Your task to perform on an android device: Do I have any events this weekend? Image 0: 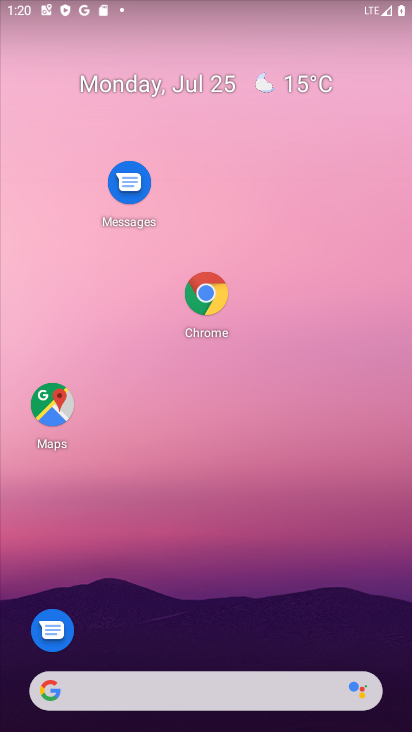
Step 0: press home button
Your task to perform on an android device: Do I have any events this weekend? Image 1: 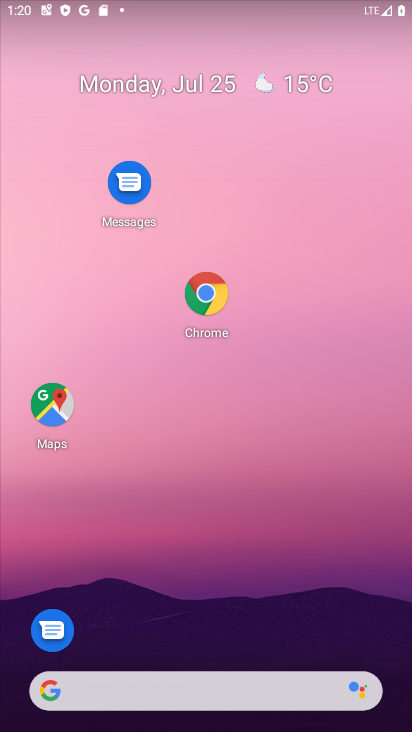
Step 1: drag from (271, 630) to (271, 134)
Your task to perform on an android device: Do I have any events this weekend? Image 2: 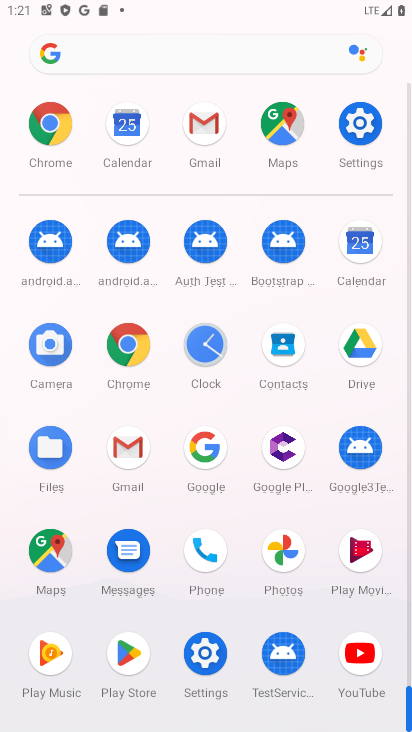
Step 2: click (347, 276)
Your task to perform on an android device: Do I have any events this weekend? Image 3: 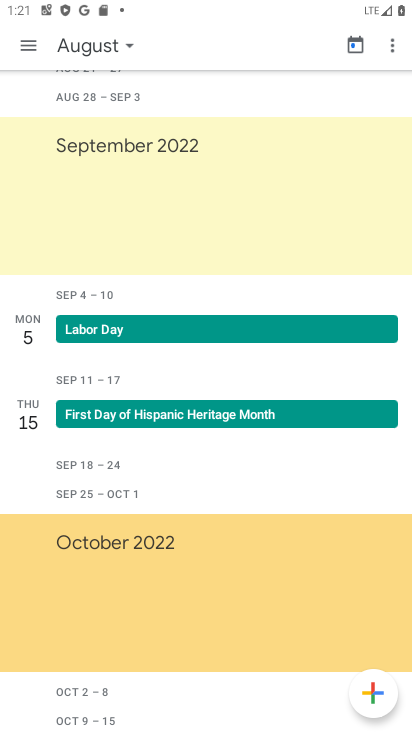
Step 3: click (126, 35)
Your task to perform on an android device: Do I have any events this weekend? Image 4: 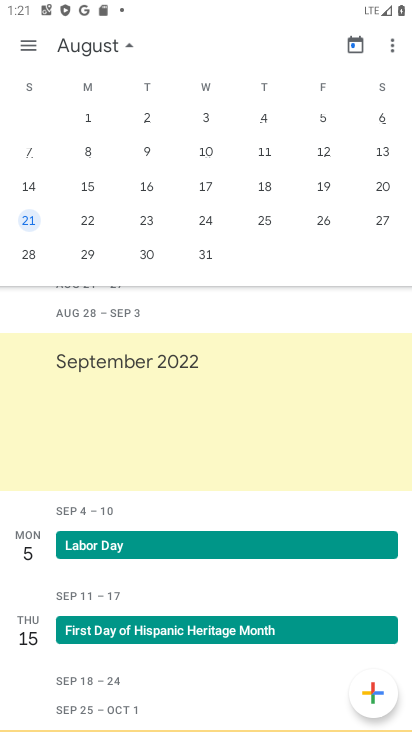
Step 4: drag from (40, 165) to (407, 184)
Your task to perform on an android device: Do I have any events this weekend? Image 5: 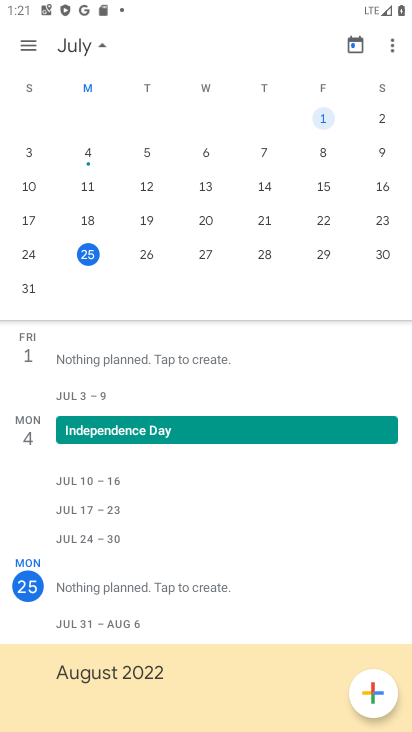
Step 5: click (23, 287)
Your task to perform on an android device: Do I have any events this weekend? Image 6: 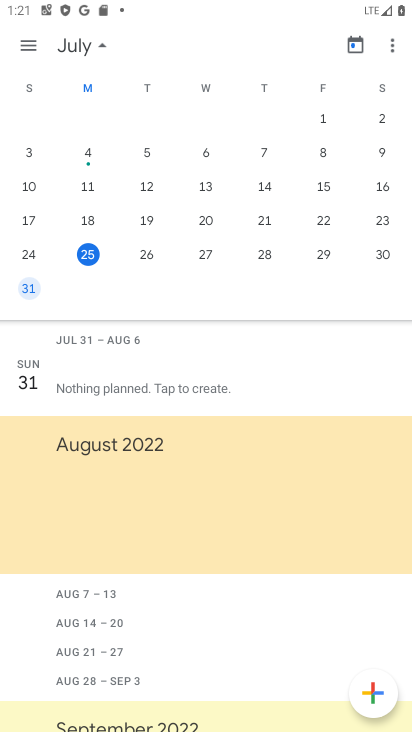
Step 6: click (96, 47)
Your task to perform on an android device: Do I have any events this weekend? Image 7: 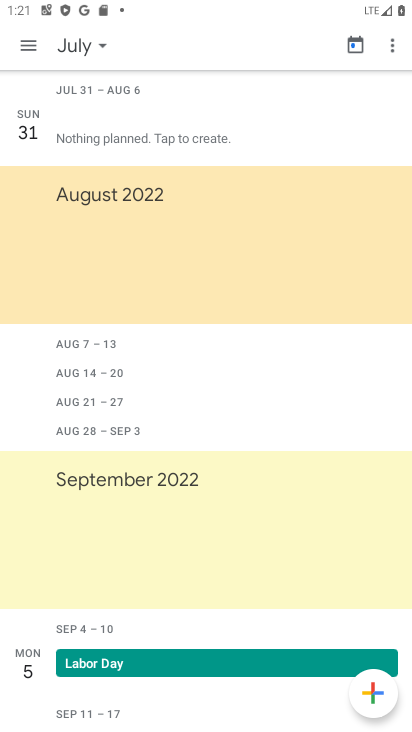
Step 7: drag from (144, 495) to (116, 287)
Your task to perform on an android device: Do I have any events this weekend? Image 8: 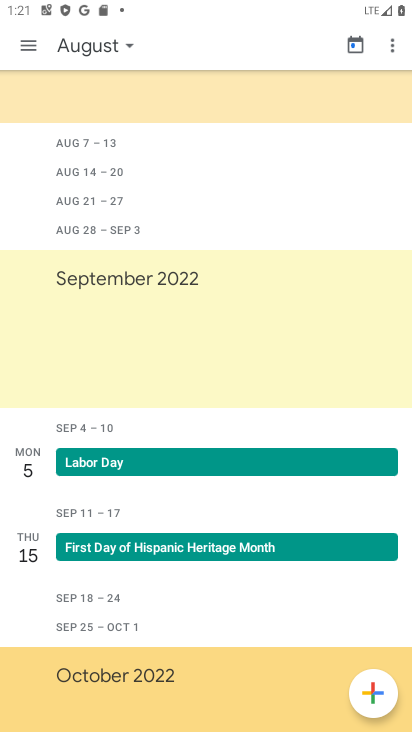
Step 8: click (127, 48)
Your task to perform on an android device: Do I have any events this weekend? Image 9: 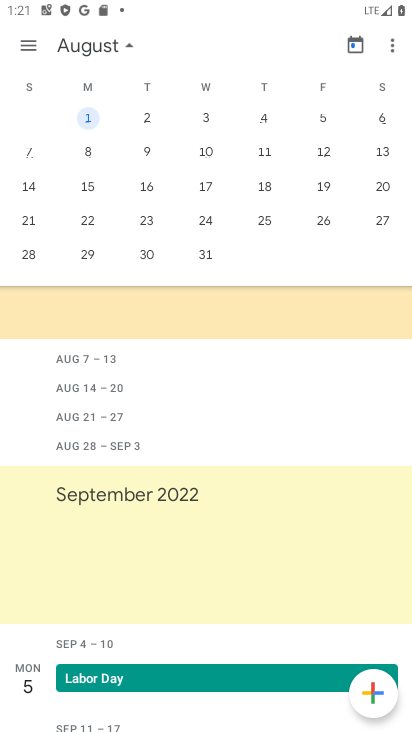
Step 9: drag from (64, 102) to (411, 102)
Your task to perform on an android device: Do I have any events this weekend? Image 10: 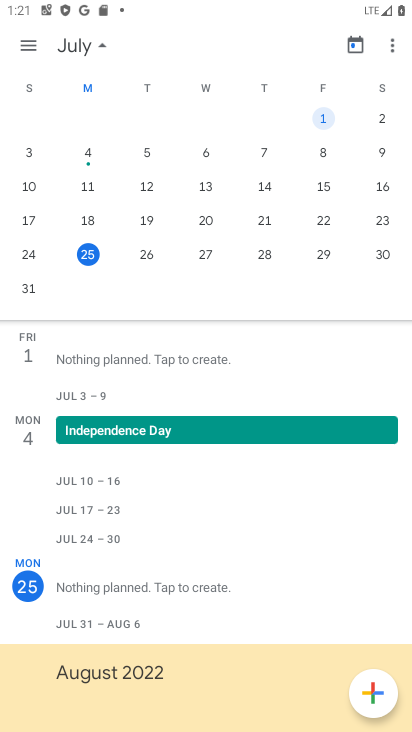
Step 10: click (33, 289)
Your task to perform on an android device: Do I have any events this weekend? Image 11: 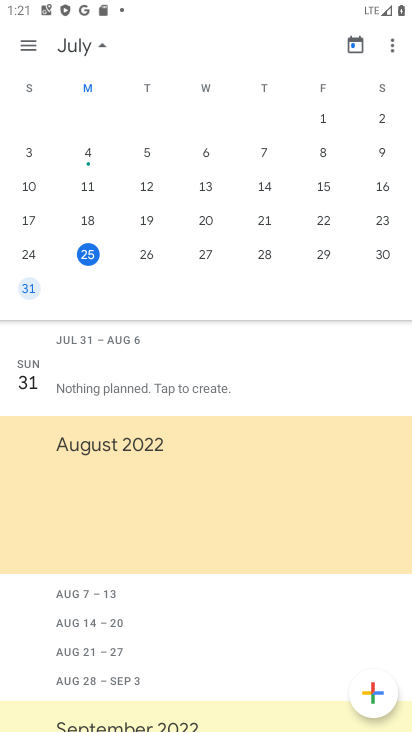
Step 11: click (112, 49)
Your task to perform on an android device: Do I have any events this weekend? Image 12: 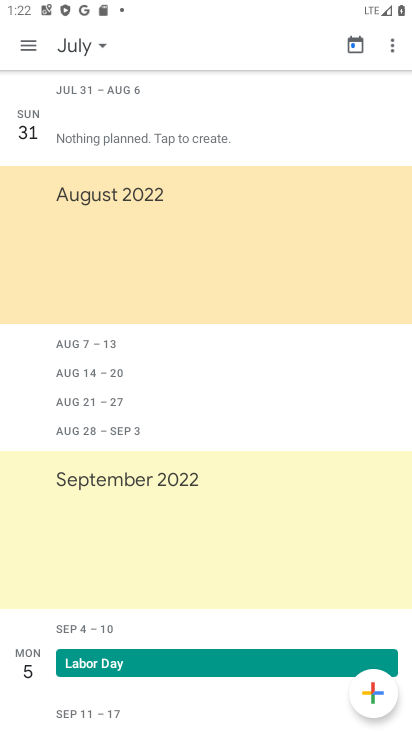
Step 12: task complete